Your task to perform on an android device: delete the emails in spam in the gmail app Image 0: 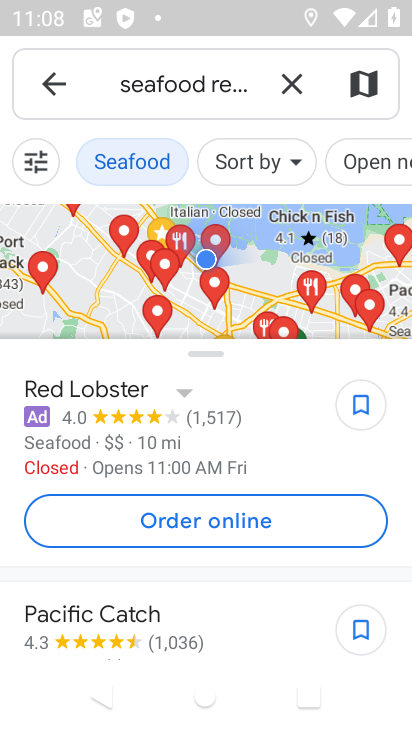
Step 0: press home button
Your task to perform on an android device: delete the emails in spam in the gmail app Image 1: 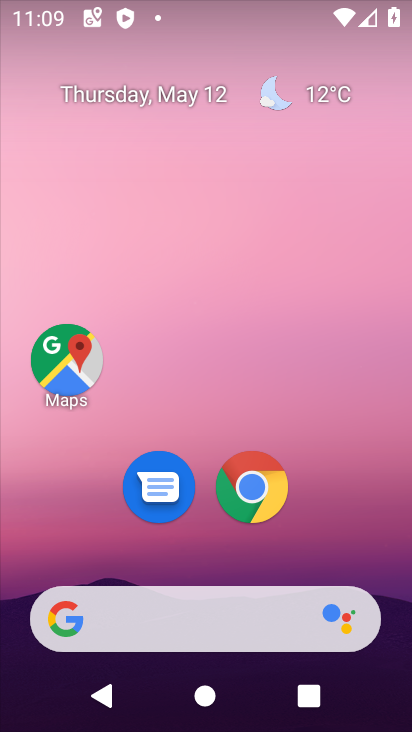
Step 1: drag from (368, 570) to (397, 5)
Your task to perform on an android device: delete the emails in spam in the gmail app Image 2: 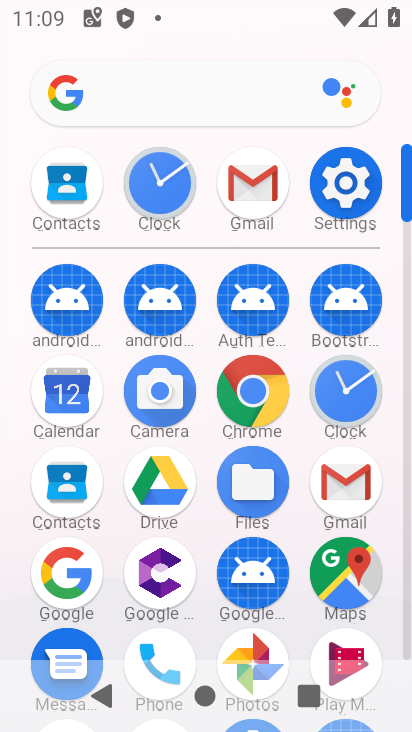
Step 2: click (244, 200)
Your task to perform on an android device: delete the emails in spam in the gmail app Image 3: 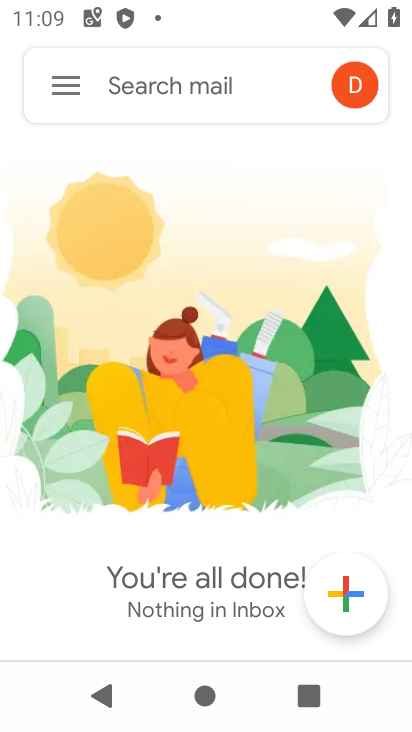
Step 3: click (66, 86)
Your task to perform on an android device: delete the emails in spam in the gmail app Image 4: 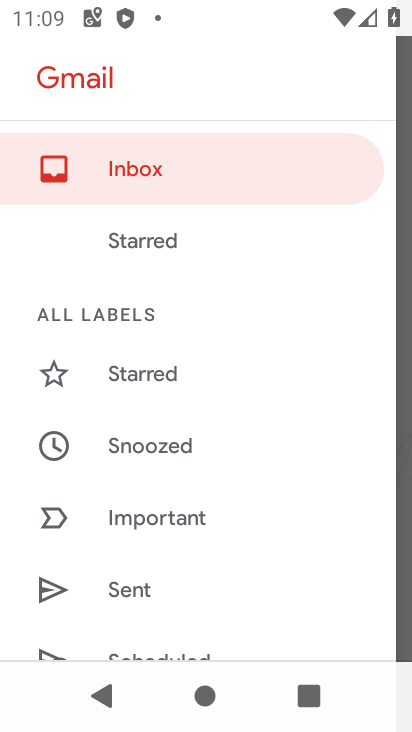
Step 4: drag from (259, 526) to (245, 99)
Your task to perform on an android device: delete the emails in spam in the gmail app Image 5: 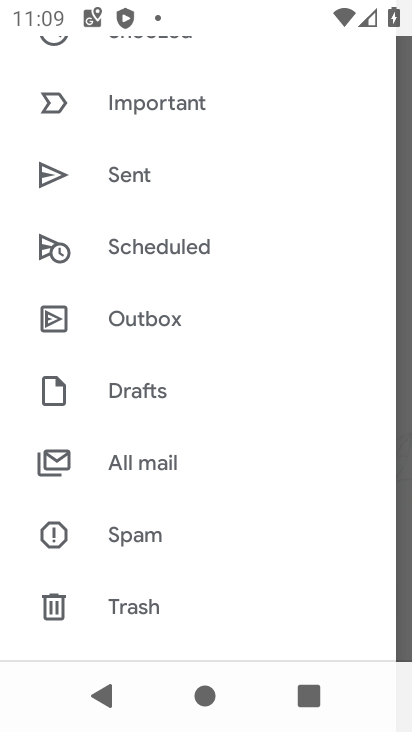
Step 5: click (134, 538)
Your task to perform on an android device: delete the emails in spam in the gmail app Image 6: 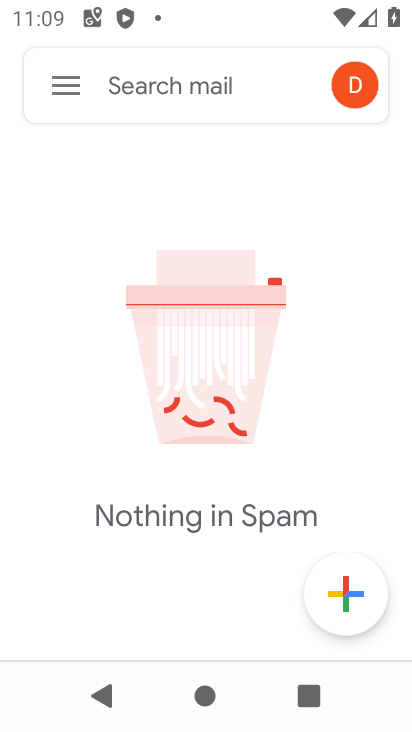
Step 6: task complete